Your task to perform on an android device: toggle priority inbox in the gmail app Image 0: 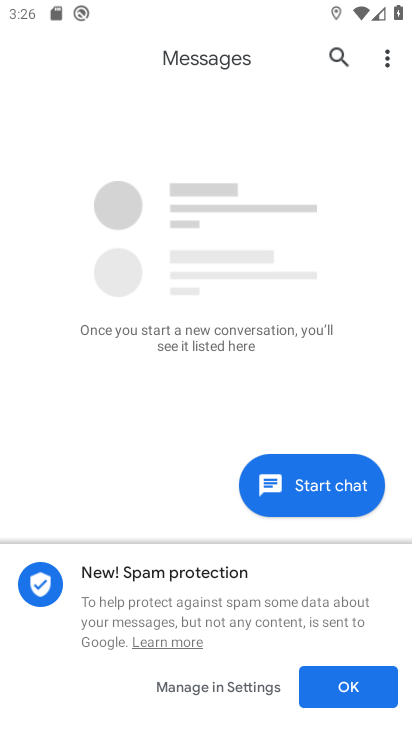
Step 0: press home button
Your task to perform on an android device: toggle priority inbox in the gmail app Image 1: 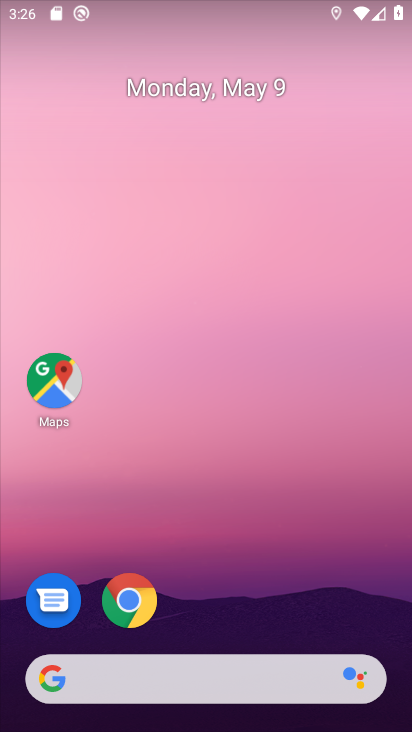
Step 1: drag from (202, 473) to (226, 167)
Your task to perform on an android device: toggle priority inbox in the gmail app Image 2: 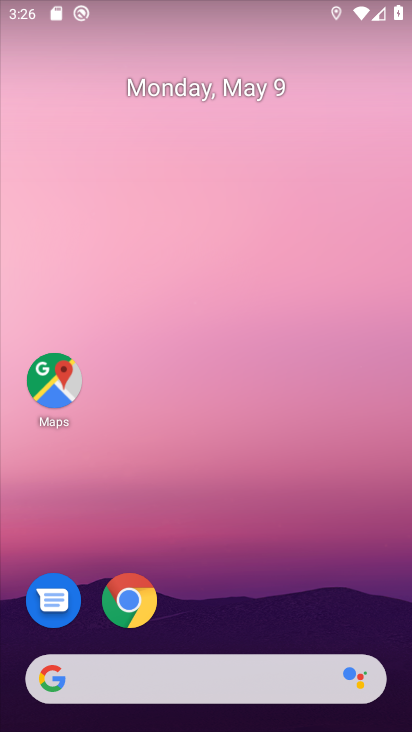
Step 2: drag from (235, 630) to (325, 21)
Your task to perform on an android device: toggle priority inbox in the gmail app Image 3: 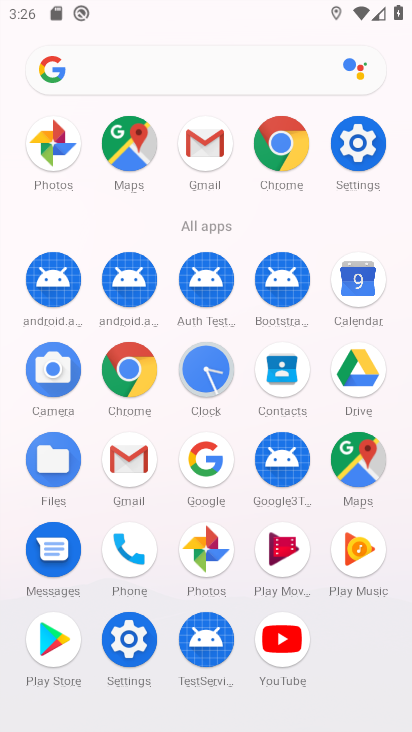
Step 3: click (117, 450)
Your task to perform on an android device: toggle priority inbox in the gmail app Image 4: 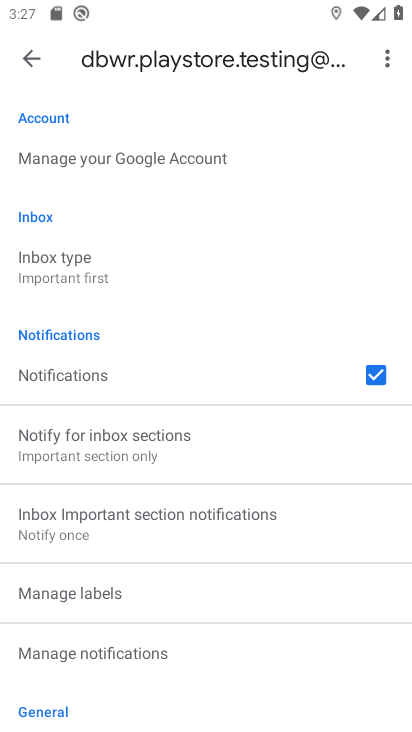
Step 4: click (81, 275)
Your task to perform on an android device: toggle priority inbox in the gmail app Image 5: 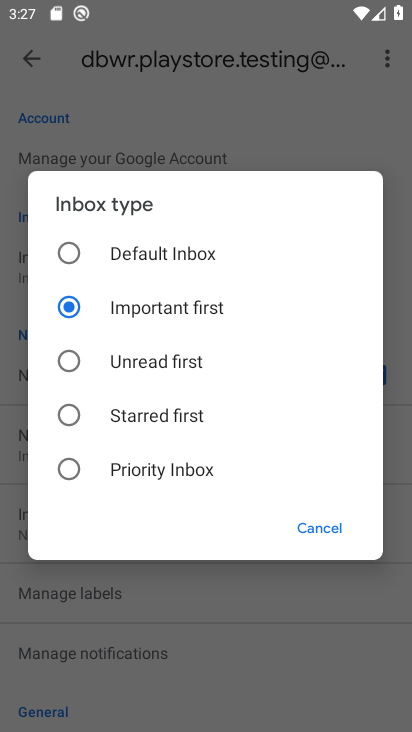
Step 5: click (94, 460)
Your task to perform on an android device: toggle priority inbox in the gmail app Image 6: 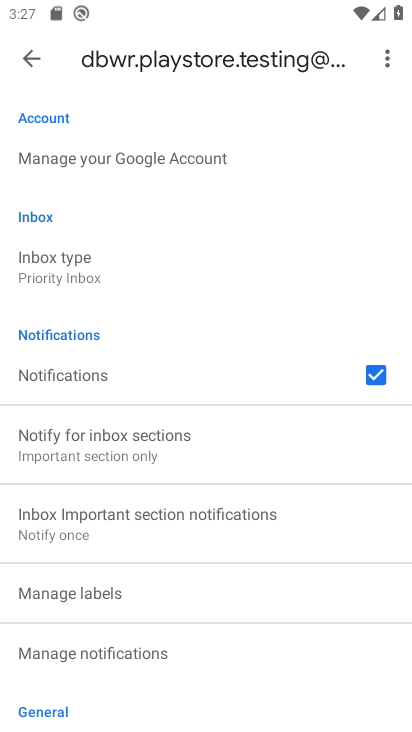
Step 6: task complete